Your task to perform on an android device: turn on data saver in the chrome app Image 0: 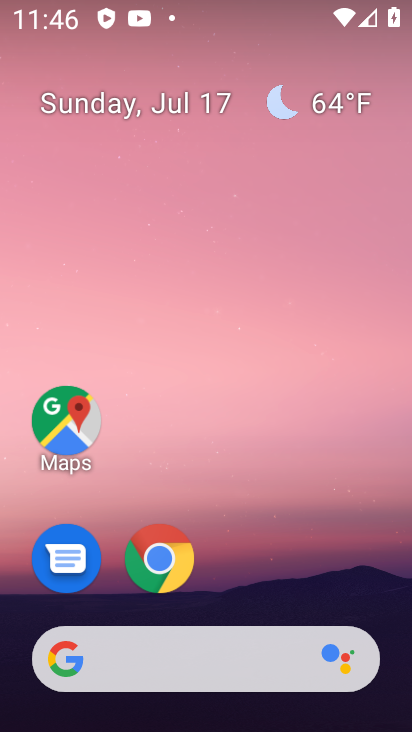
Step 0: drag from (366, 595) to (347, 231)
Your task to perform on an android device: turn on data saver in the chrome app Image 1: 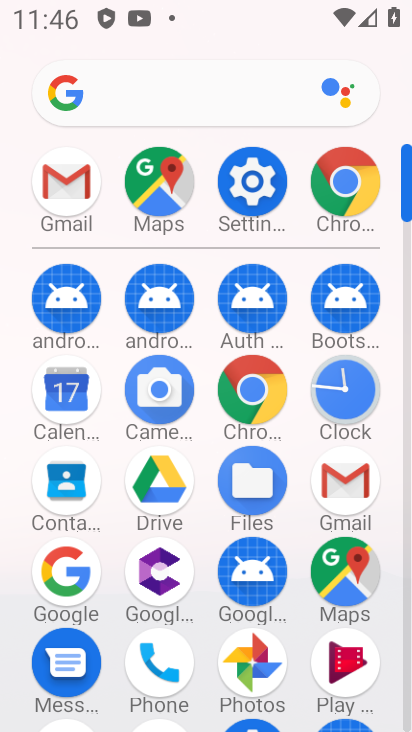
Step 1: click (257, 394)
Your task to perform on an android device: turn on data saver in the chrome app Image 2: 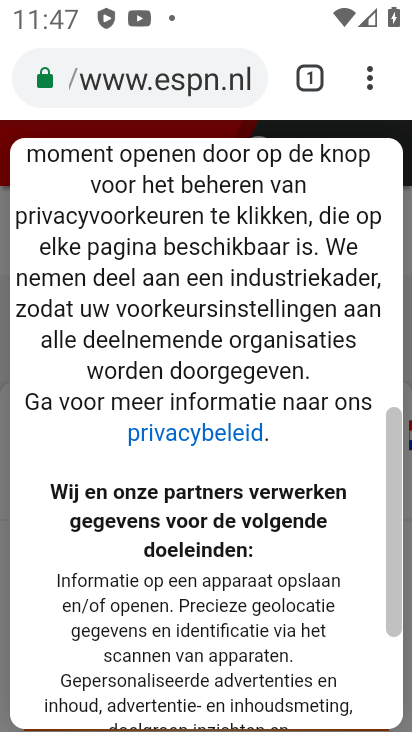
Step 2: click (367, 80)
Your task to perform on an android device: turn on data saver in the chrome app Image 3: 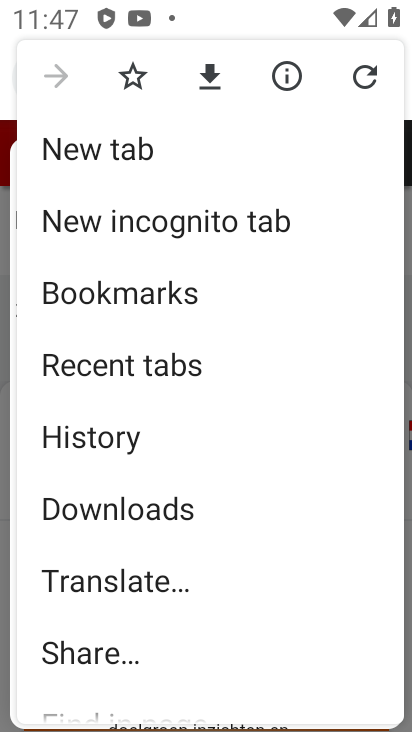
Step 3: drag from (333, 479) to (344, 395)
Your task to perform on an android device: turn on data saver in the chrome app Image 4: 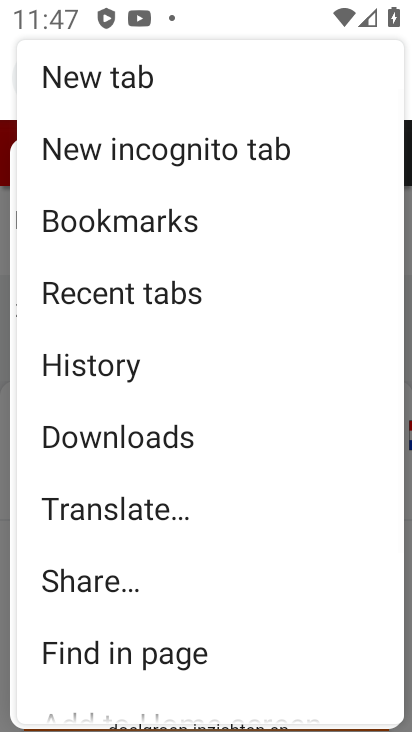
Step 4: drag from (326, 514) to (330, 435)
Your task to perform on an android device: turn on data saver in the chrome app Image 5: 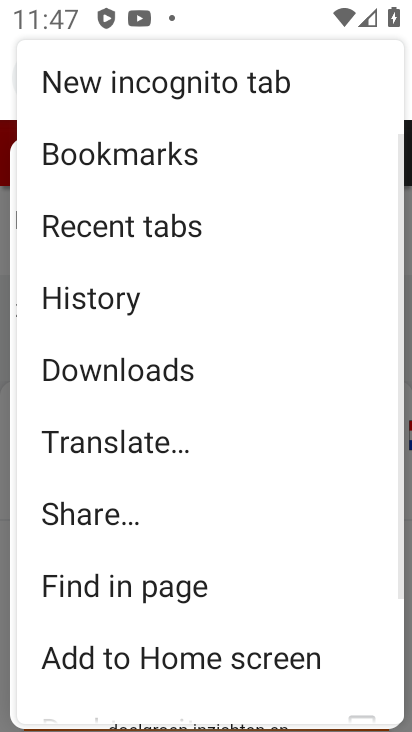
Step 5: drag from (316, 515) to (321, 403)
Your task to perform on an android device: turn on data saver in the chrome app Image 6: 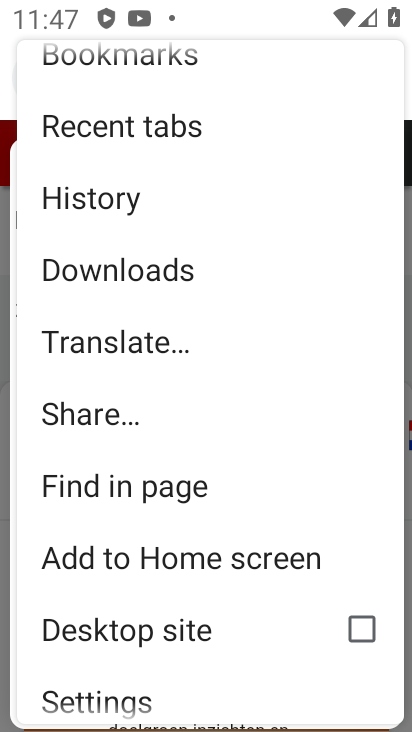
Step 6: drag from (324, 477) to (338, 343)
Your task to perform on an android device: turn on data saver in the chrome app Image 7: 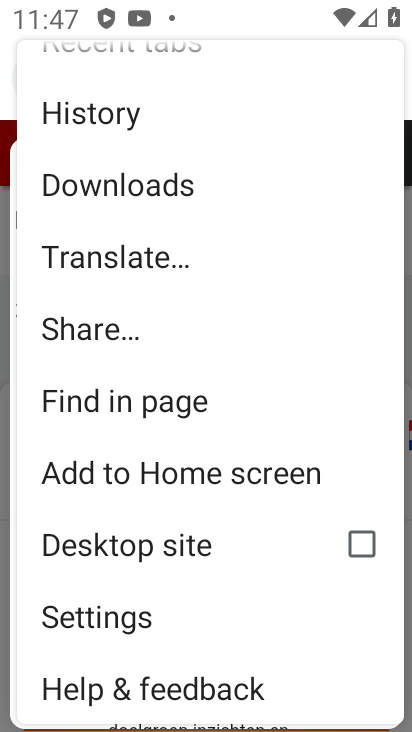
Step 7: click (226, 614)
Your task to perform on an android device: turn on data saver in the chrome app Image 8: 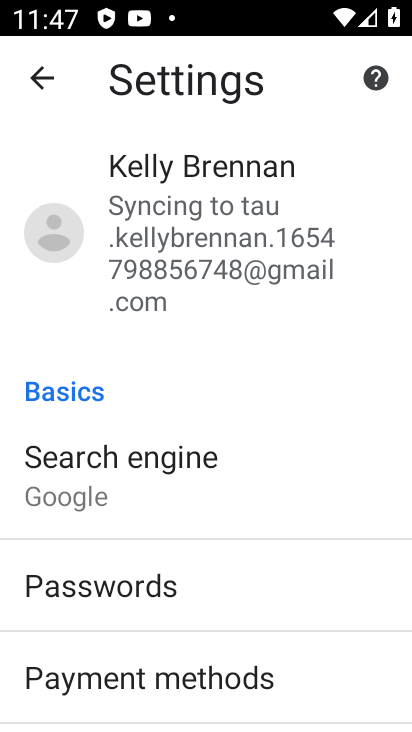
Step 8: drag from (300, 584) to (305, 478)
Your task to perform on an android device: turn on data saver in the chrome app Image 9: 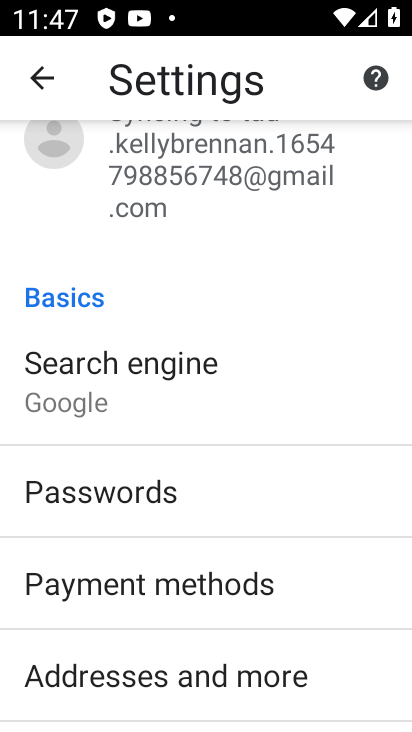
Step 9: drag from (316, 597) to (323, 493)
Your task to perform on an android device: turn on data saver in the chrome app Image 10: 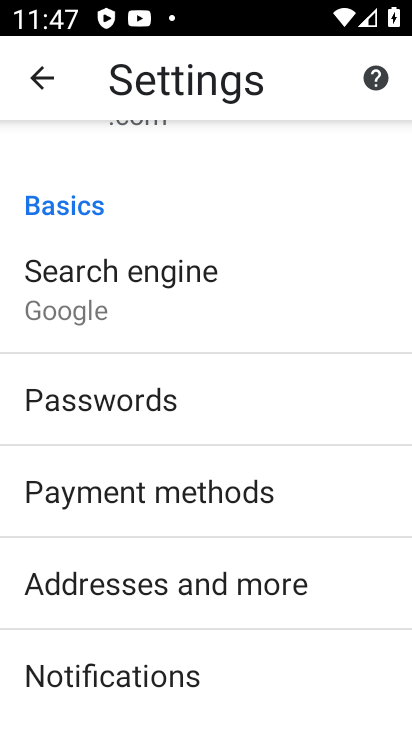
Step 10: drag from (348, 627) to (330, 510)
Your task to perform on an android device: turn on data saver in the chrome app Image 11: 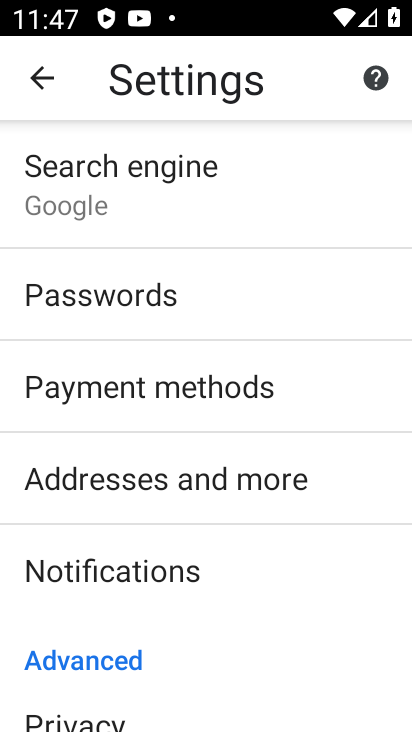
Step 11: drag from (320, 623) to (328, 499)
Your task to perform on an android device: turn on data saver in the chrome app Image 12: 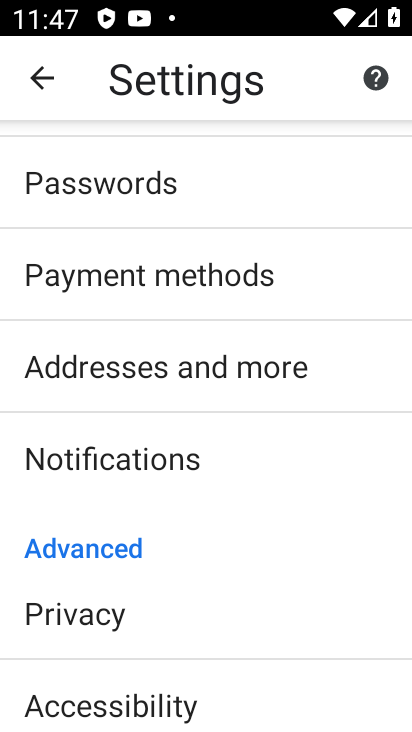
Step 12: drag from (331, 652) to (322, 527)
Your task to perform on an android device: turn on data saver in the chrome app Image 13: 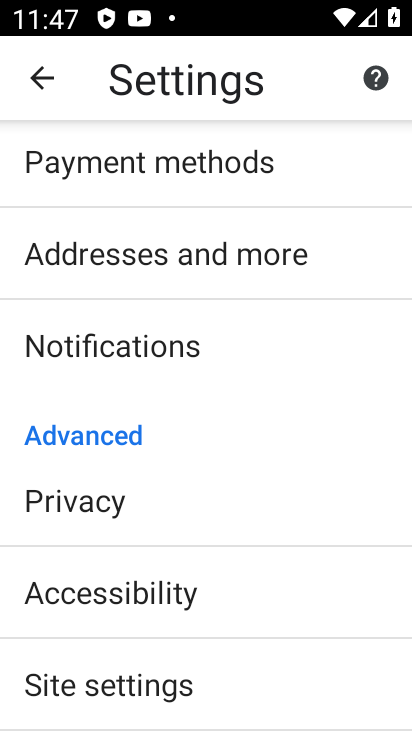
Step 13: drag from (340, 604) to (341, 488)
Your task to perform on an android device: turn on data saver in the chrome app Image 14: 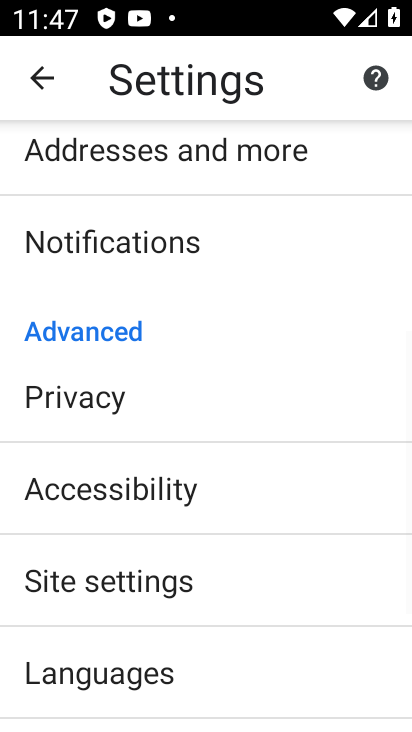
Step 14: drag from (317, 599) to (322, 479)
Your task to perform on an android device: turn on data saver in the chrome app Image 15: 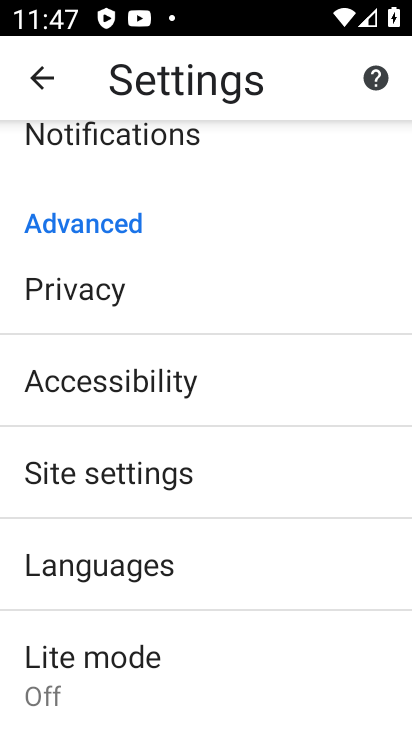
Step 15: drag from (298, 482) to (300, 410)
Your task to perform on an android device: turn on data saver in the chrome app Image 16: 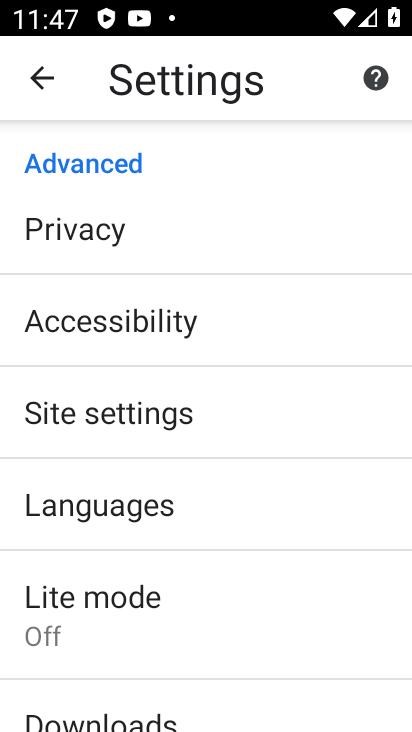
Step 16: click (301, 595)
Your task to perform on an android device: turn on data saver in the chrome app Image 17: 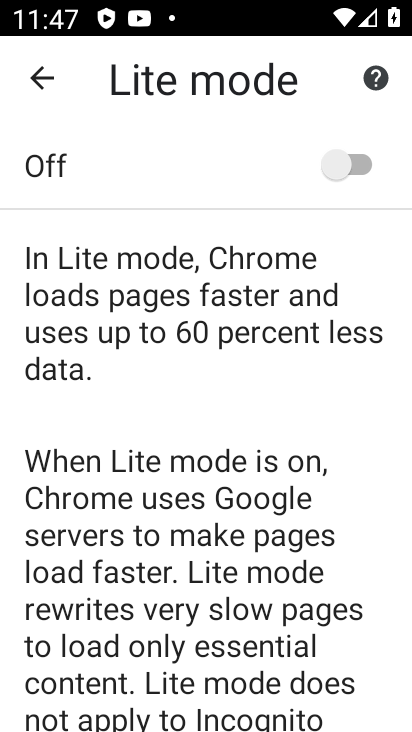
Step 17: click (338, 169)
Your task to perform on an android device: turn on data saver in the chrome app Image 18: 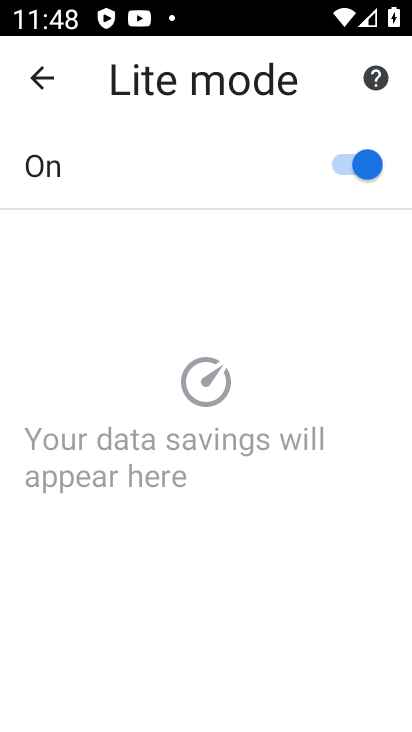
Step 18: task complete